Your task to perform on an android device: Open my contact list Image 0: 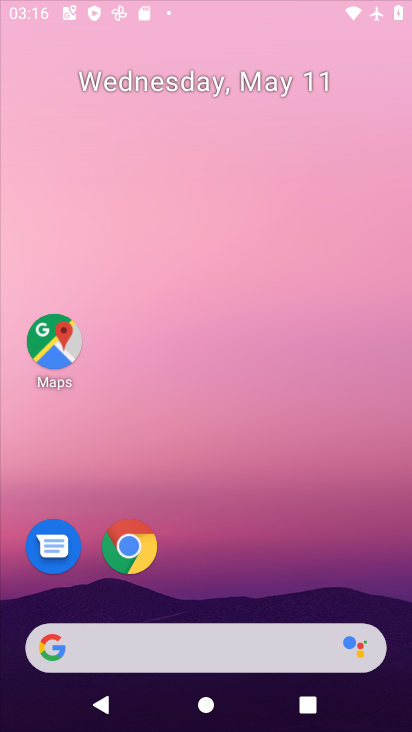
Step 0: drag from (199, 588) to (269, 142)
Your task to perform on an android device: Open my contact list Image 1: 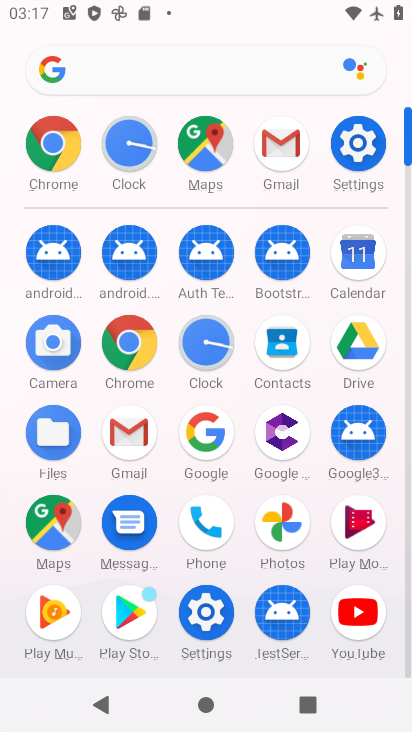
Step 1: click (284, 337)
Your task to perform on an android device: Open my contact list Image 2: 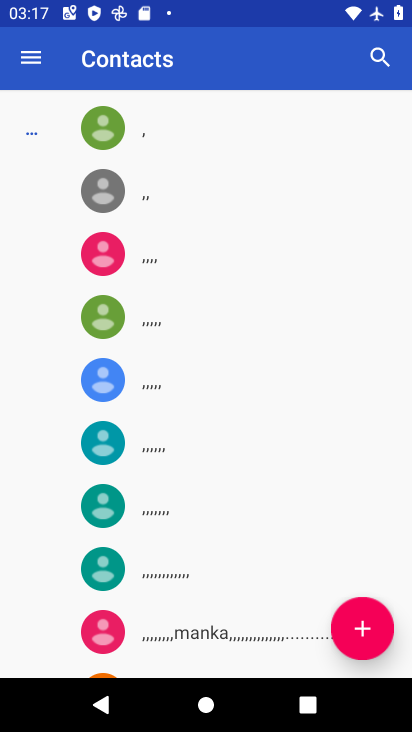
Step 2: drag from (231, 547) to (345, 250)
Your task to perform on an android device: Open my contact list Image 3: 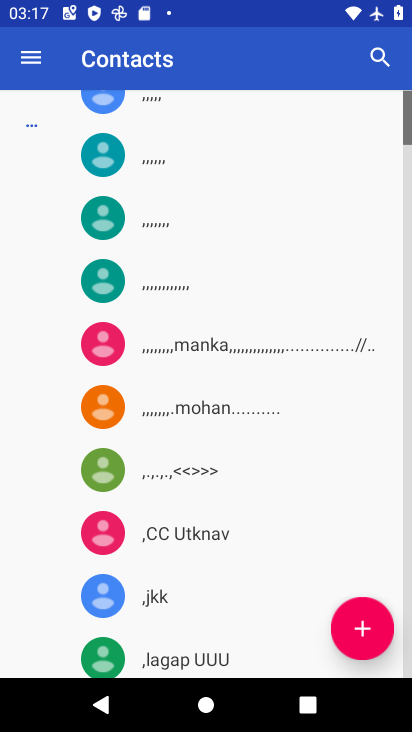
Step 3: press home button
Your task to perform on an android device: Open my contact list Image 4: 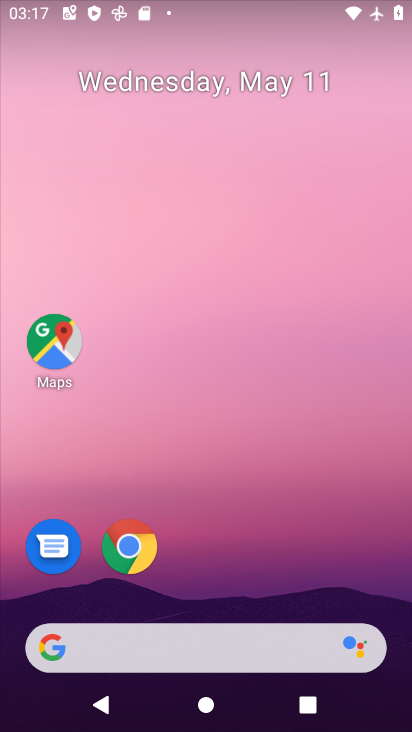
Step 4: drag from (179, 592) to (268, 246)
Your task to perform on an android device: Open my contact list Image 5: 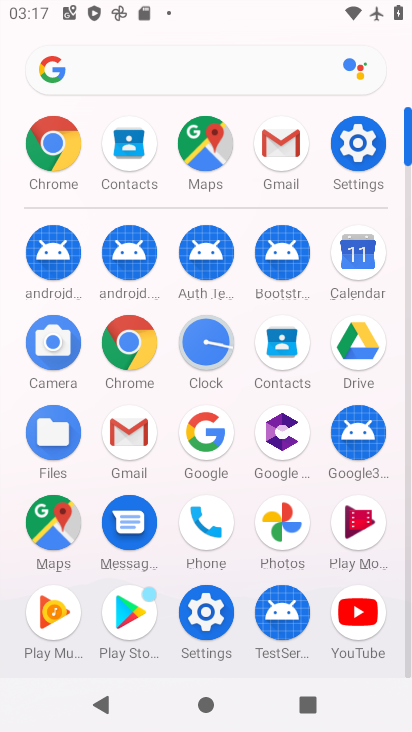
Step 5: click (264, 346)
Your task to perform on an android device: Open my contact list Image 6: 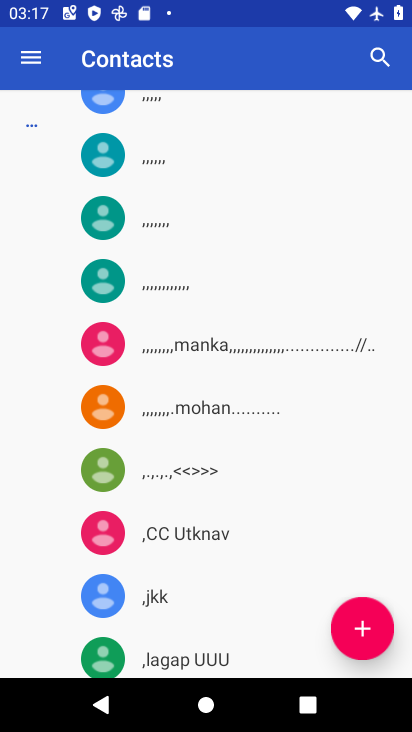
Step 6: task complete